Your task to perform on an android device: Search for seafood restaurants on Google Maps Image 0: 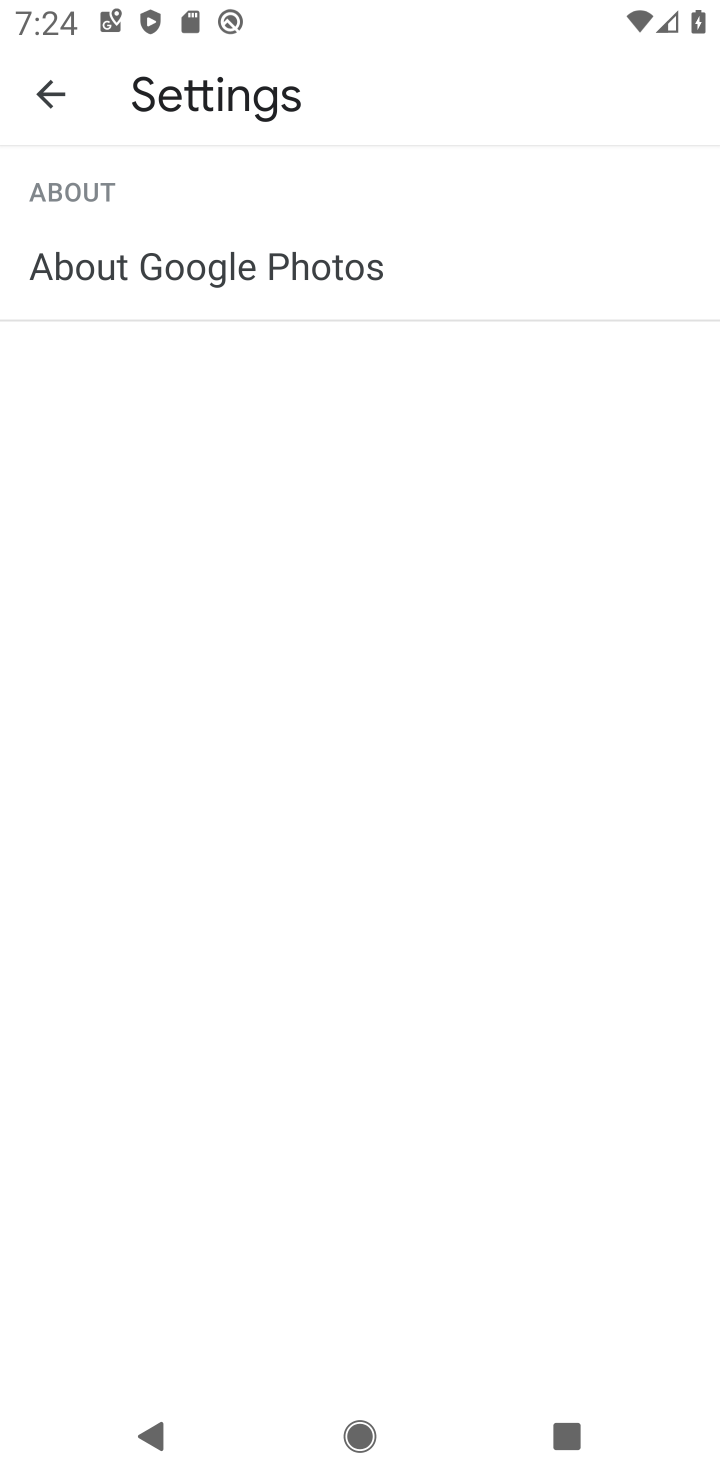
Step 0: press home button
Your task to perform on an android device: Search for seafood restaurants on Google Maps Image 1: 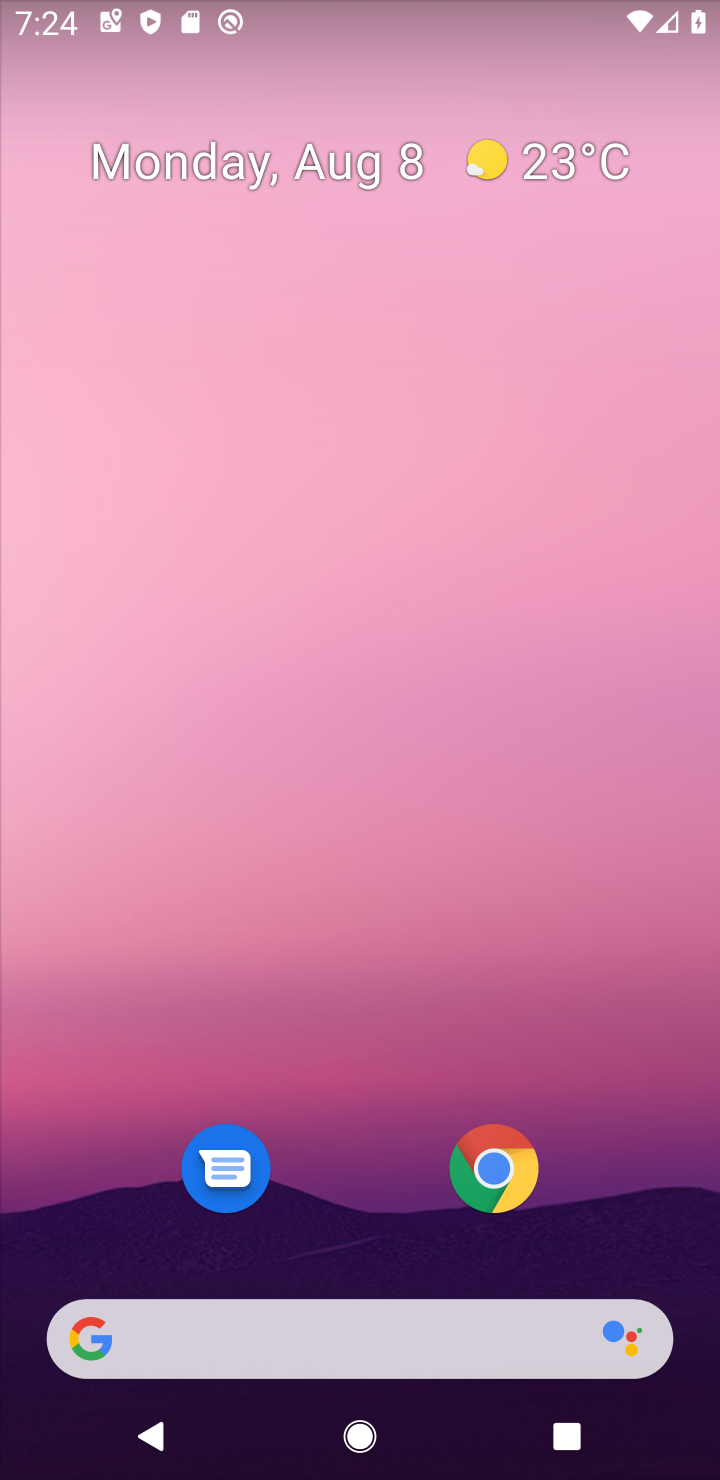
Step 1: drag from (534, 672) to (320, 37)
Your task to perform on an android device: Search for seafood restaurants on Google Maps Image 2: 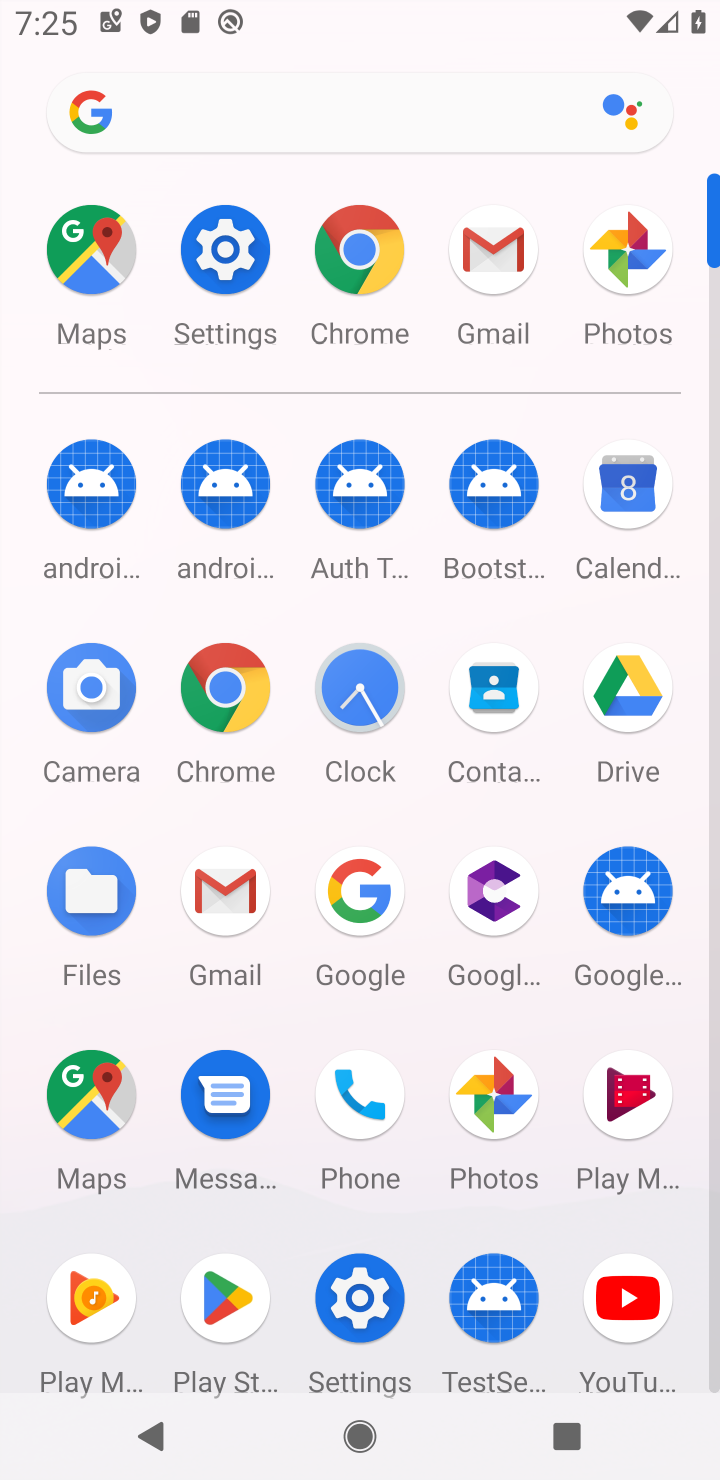
Step 2: click (82, 1101)
Your task to perform on an android device: Search for seafood restaurants on Google Maps Image 3: 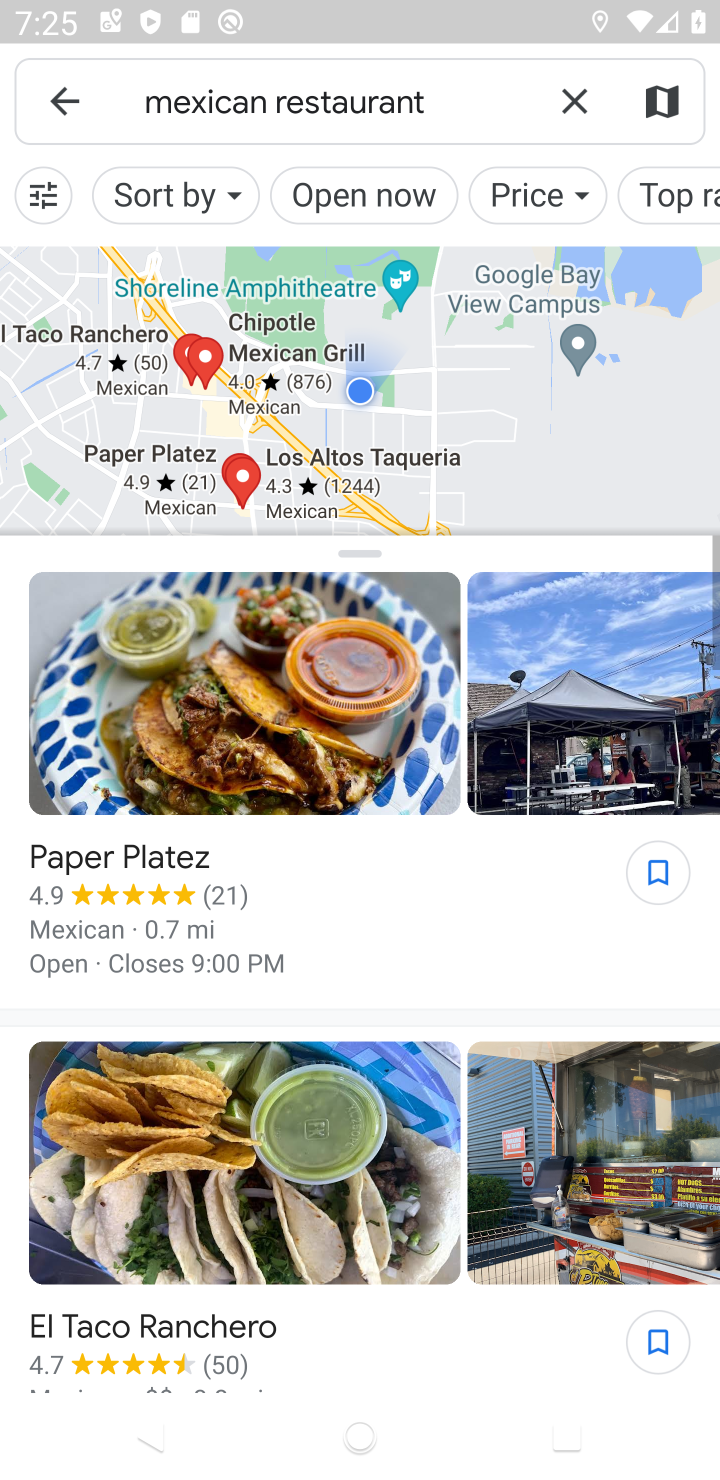
Step 3: click (562, 93)
Your task to perform on an android device: Search for seafood restaurants on Google Maps Image 4: 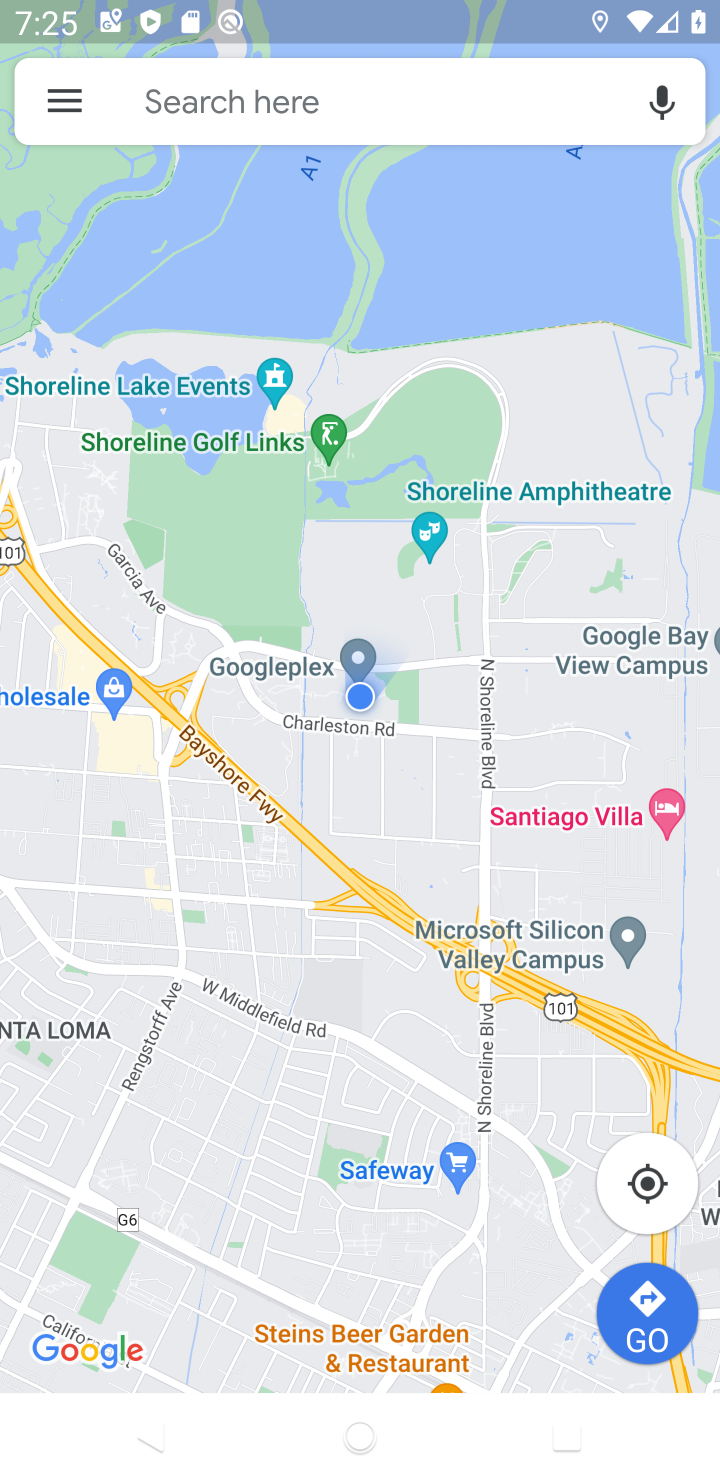
Step 4: click (252, 113)
Your task to perform on an android device: Search for seafood restaurants on Google Maps Image 5: 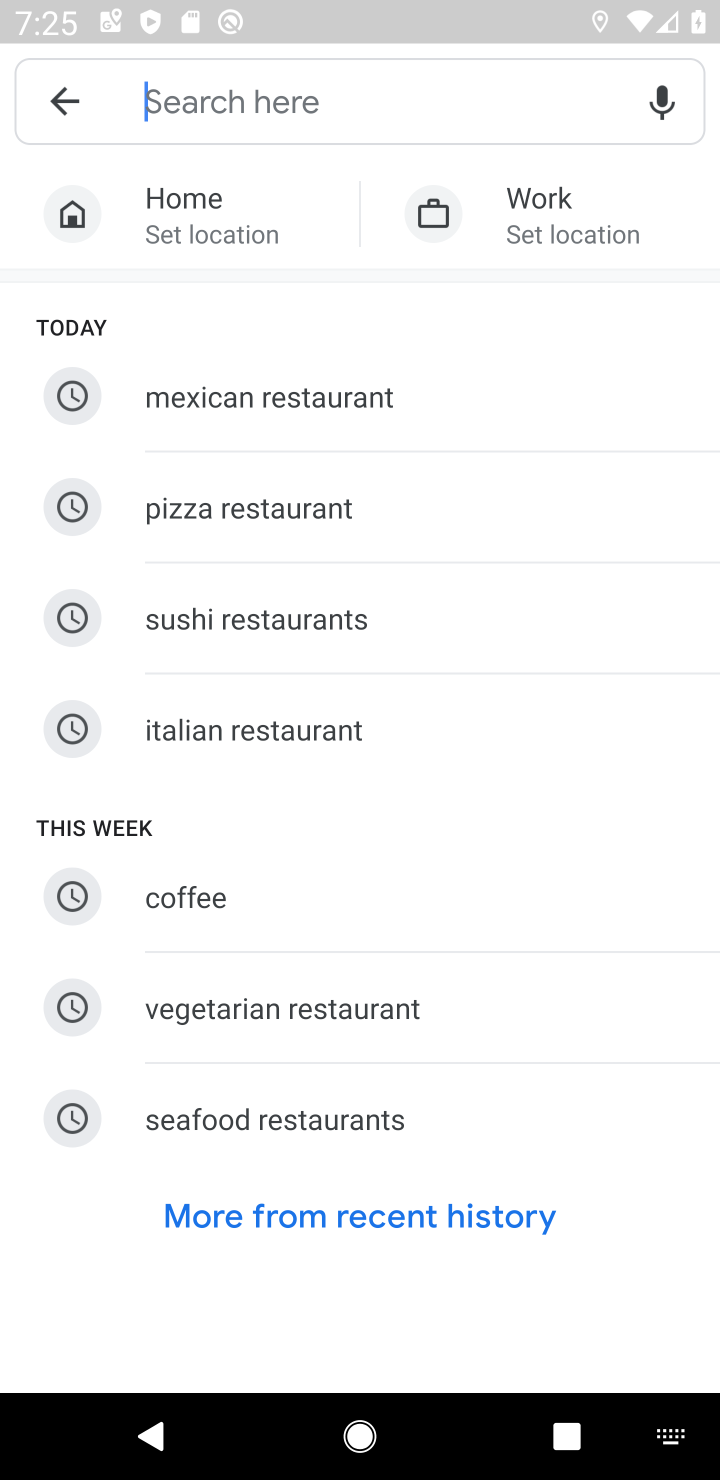
Step 5: click (220, 1109)
Your task to perform on an android device: Search for seafood restaurants on Google Maps Image 6: 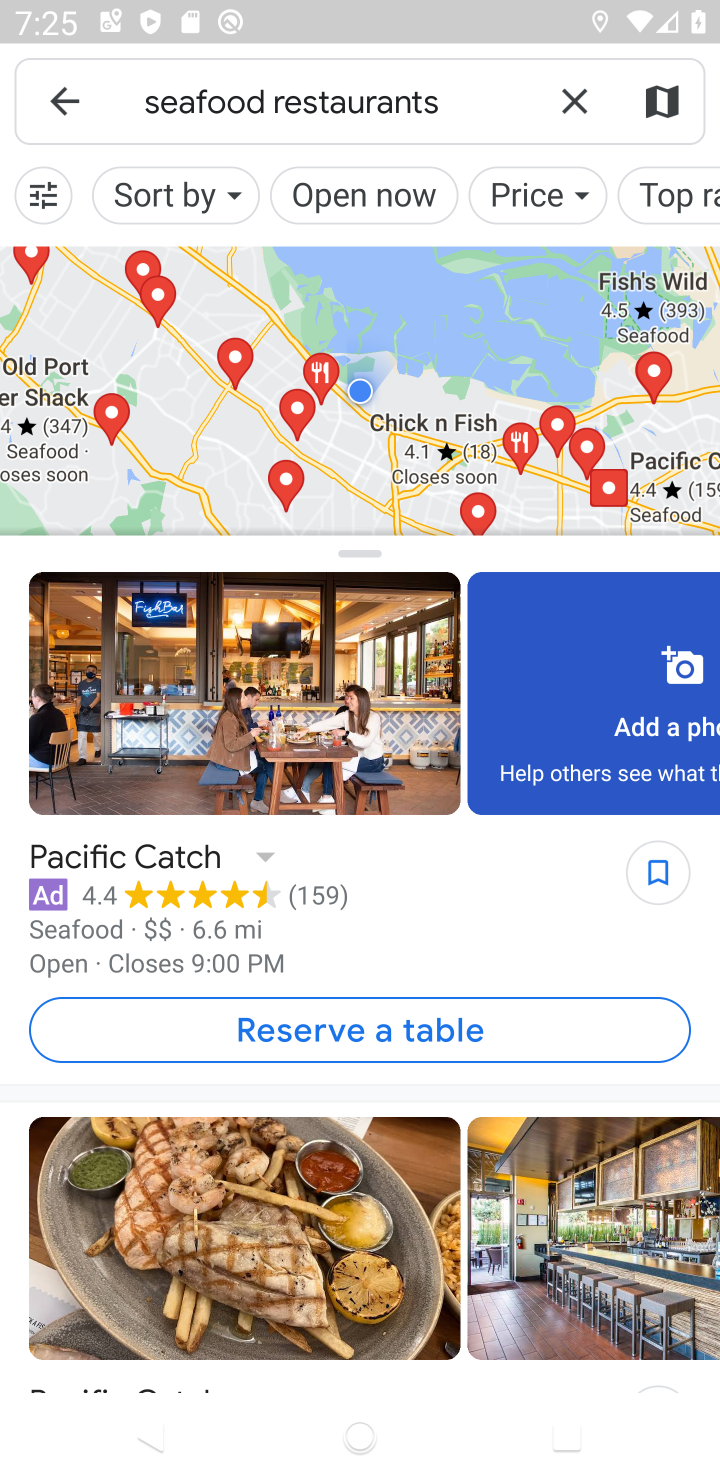
Step 6: task complete